Your task to perform on an android device: turn off data saver in the chrome app Image 0: 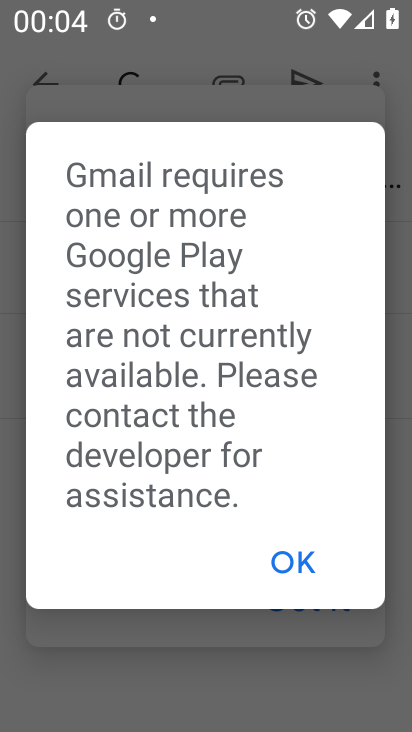
Step 0: press home button
Your task to perform on an android device: turn off data saver in the chrome app Image 1: 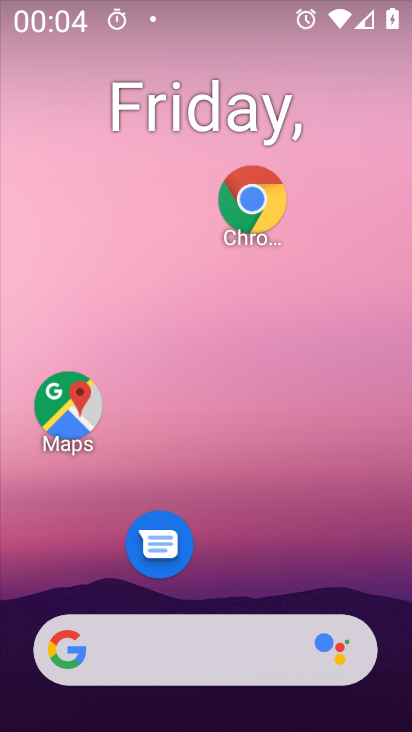
Step 1: click (244, 205)
Your task to perform on an android device: turn off data saver in the chrome app Image 2: 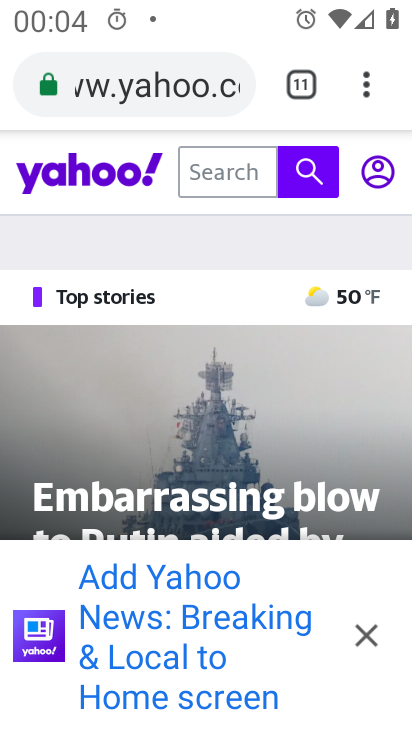
Step 2: click (347, 86)
Your task to perform on an android device: turn off data saver in the chrome app Image 3: 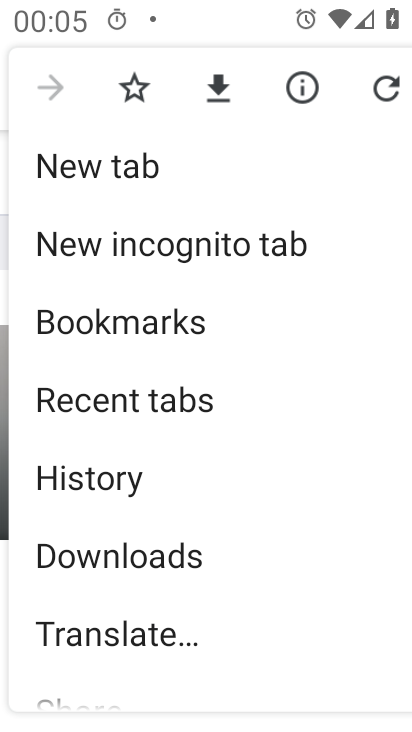
Step 3: drag from (115, 556) to (199, 182)
Your task to perform on an android device: turn off data saver in the chrome app Image 4: 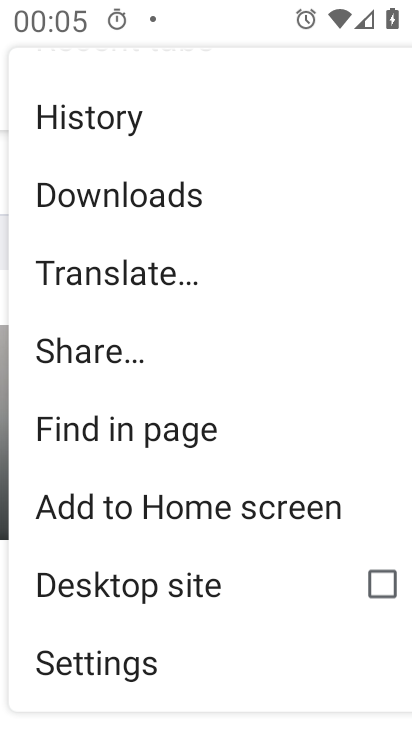
Step 4: click (75, 687)
Your task to perform on an android device: turn off data saver in the chrome app Image 5: 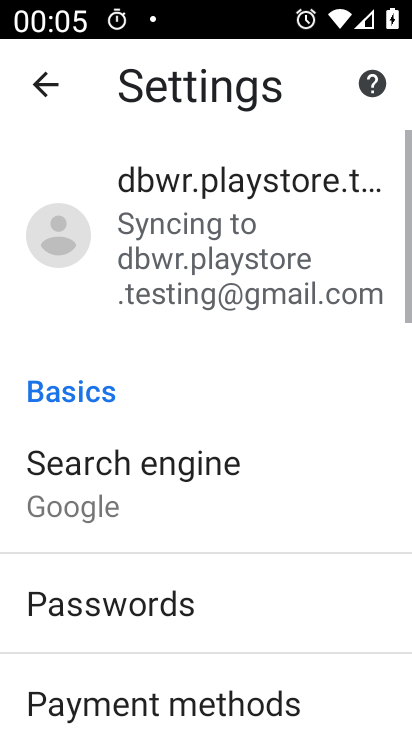
Step 5: drag from (130, 509) to (156, 289)
Your task to perform on an android device: turn off data saver in the chrome app Image 6: 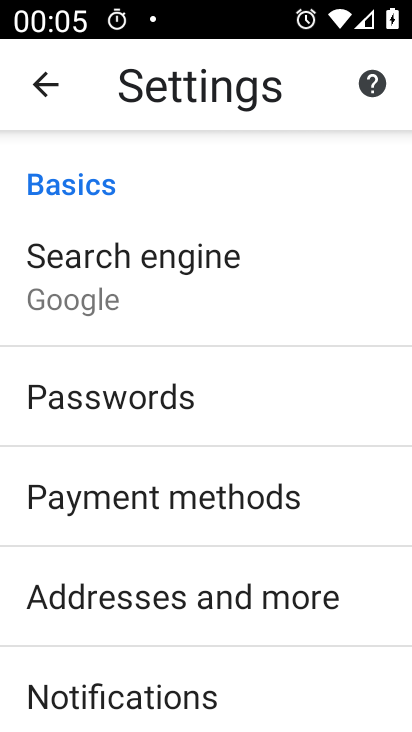
Step 6: drag from (139, 606) to (126, 76)
Your task to perform on an android device: turn off data saver in the chrome app Image 7: 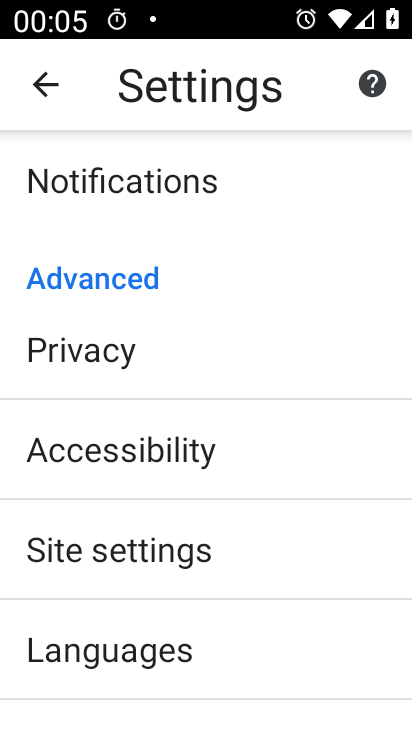
Step 7: click (129, 569)
Your task to perform on an android device: turn off data saver in the chrome app Image 8: 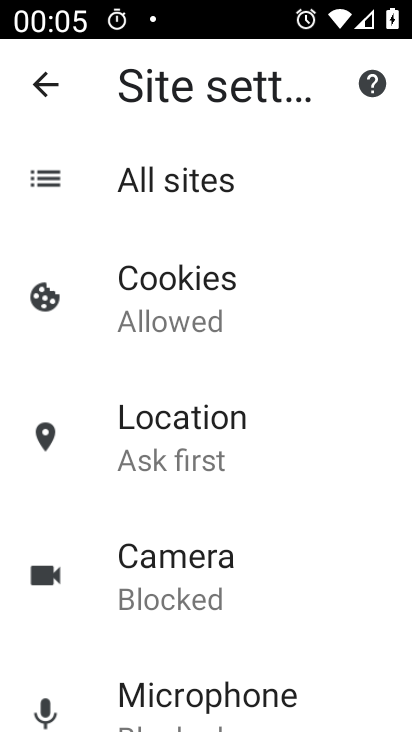
Step 8: drag from (88, 650) to (172, 160)
Your task to perform on an android device: turn off data saver in the chrome app Image 9: 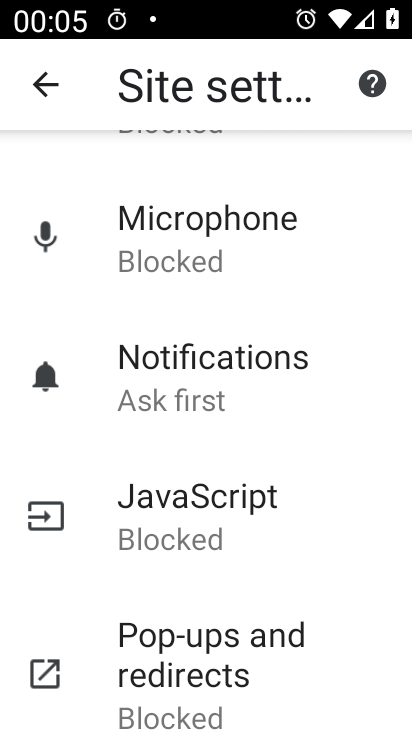
Step 9: drag from (113, 611) to (169, 251)
Your task to perform on an android device: turn off data saver in the chrome app Image 10: 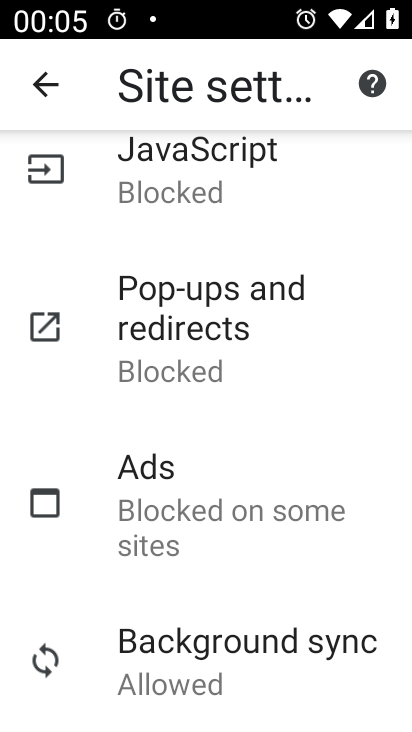
Step 10: drag from (38, 669) to (122, 324)
Your task to perform on an android device: turn off data saver in the chrome app Image 11: 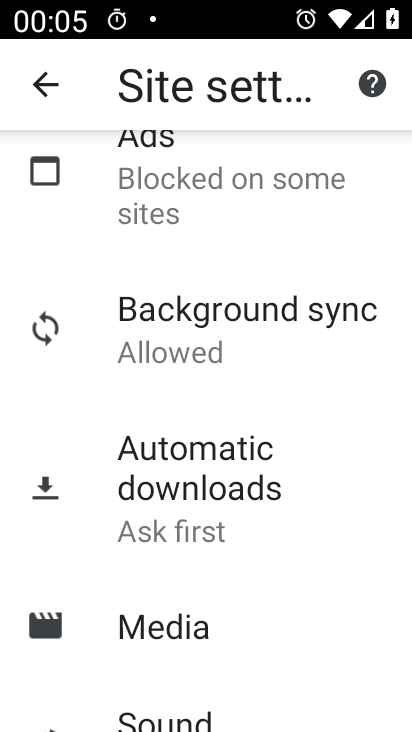
Step 11: drag from (137, 625) to (214, 253)
Your task to perform on an android device: turn off data saver in the chrome app Image 12: 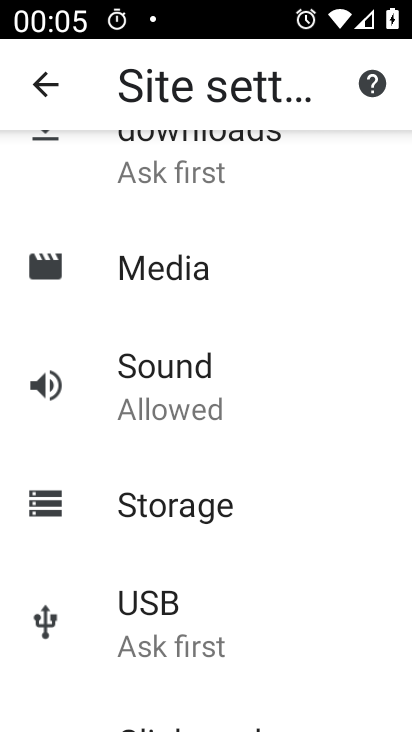
Step 12: drag from (25, 634) to (107, 320)
Your task to perform on an android device: turn off data saver in the chrome app Image 13: 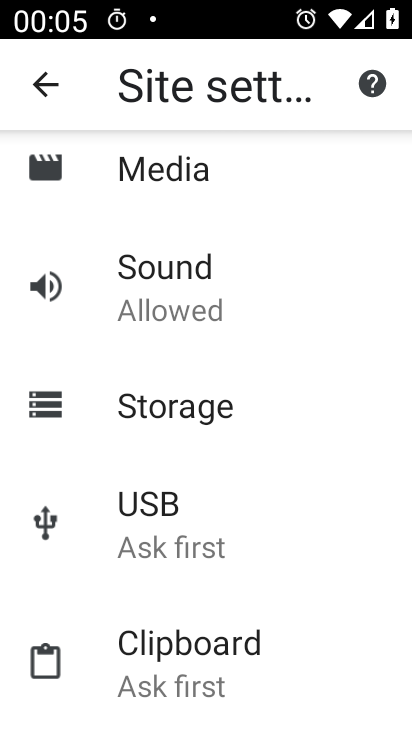
Step 13: drag from (58, 679) to (158, 337)
Your task to perform on an android device: turn off data saver in the chrome app Image 14: 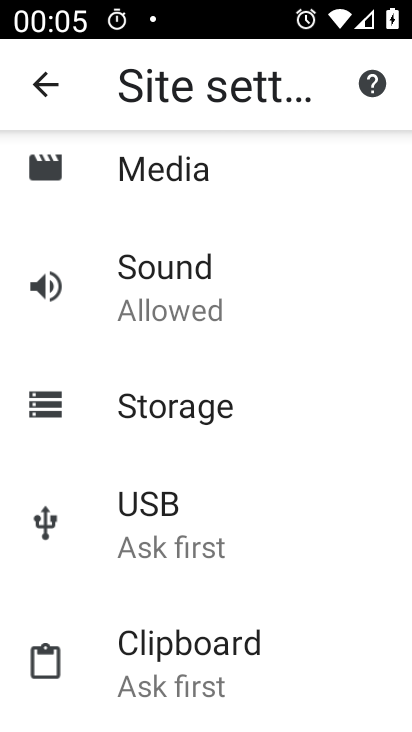
Step 14: drag from (212, 308) to (185, 725)
Your task to perform on an android device: turn off data saver in the chrome app Image 15: 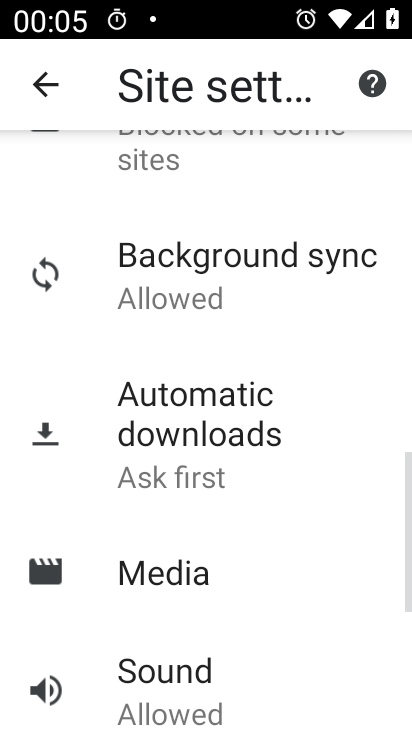
Step 15: drag from (137, 229) to (167, 603)
Your task to perform on an android device: turn off data saver in the chrome app Image 16: 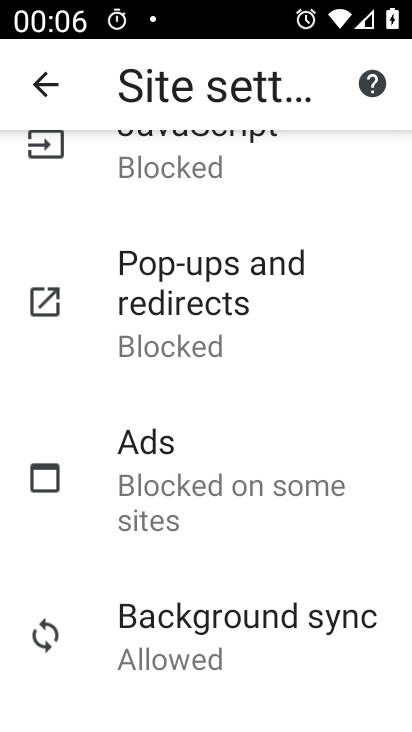
Step 16: click (44, 82)
Your task to perform on an android device: turn off data saver in the chrome app Image 17: 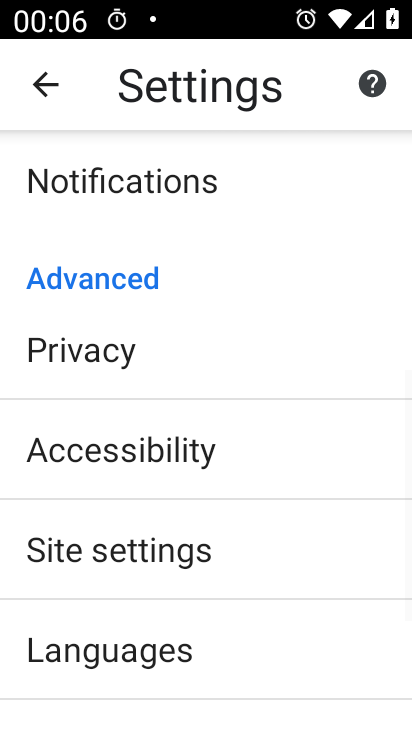
Step 17: drag from (207, 500) to (184, 215)
Your task to perform on an android device: turn off data saver in the chrome app Image 18: 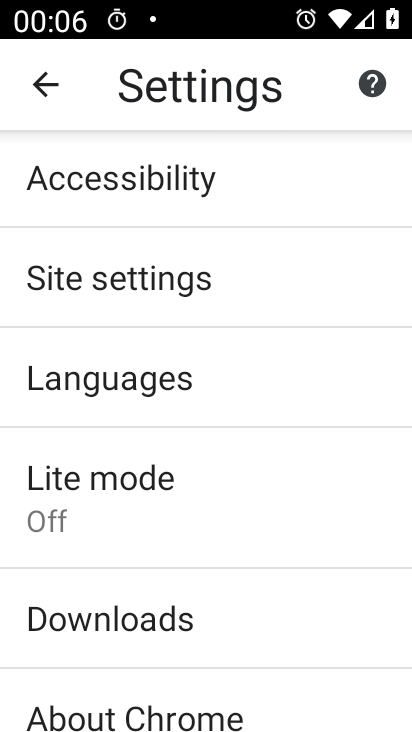
Step 18: click (136, 524)
Your task to perform on an android device: turn off data saver in the chrome app Image 19: 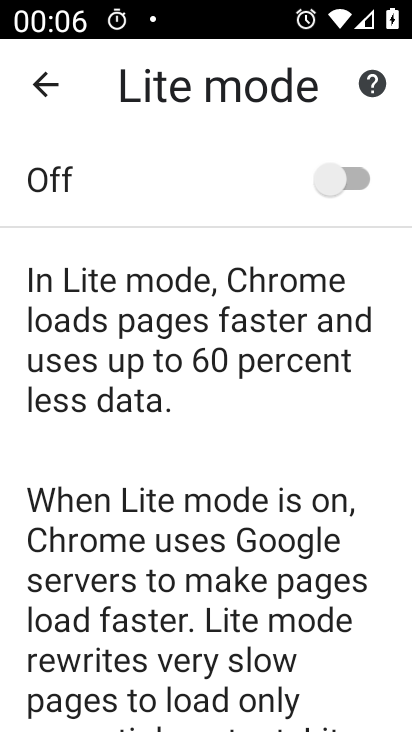
Step 19: task complete